Your task to perform on an android device: Turn off the flashlight Image 0: 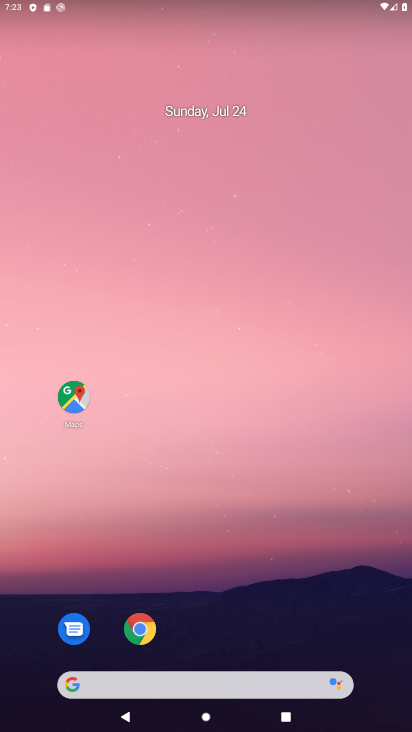
Step 0: drag from (350, 622) to (165, 2)
Your task to perform on an android device: Turn off the flashlight Image 1: 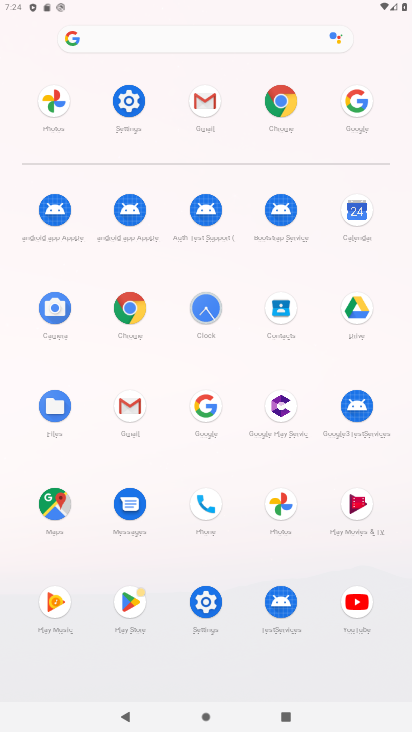
Step 1: click (200, 607)
Your task to perform on an android device: Turn off the flashlight Image 2: 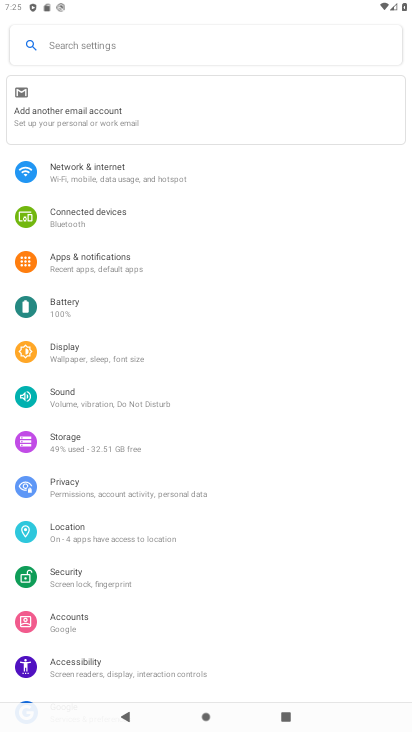
Step 2: task complete